Your task to perform on an android device: Go to internet settings Image 0: 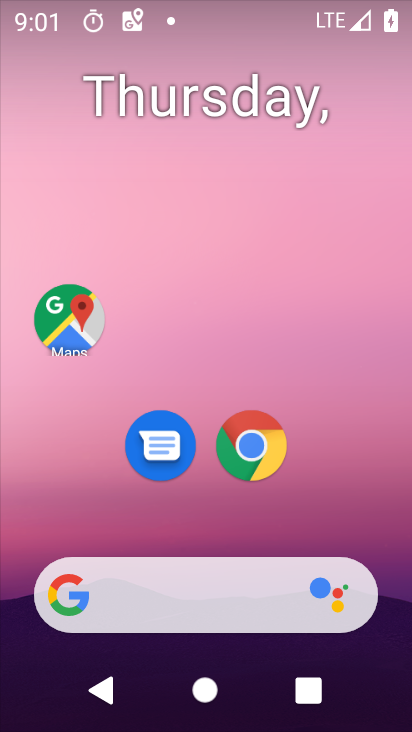
Step 0: drag from (186, 532) to (209, 178)
Your task to perform on an android device: Go to internet settings Image 1: 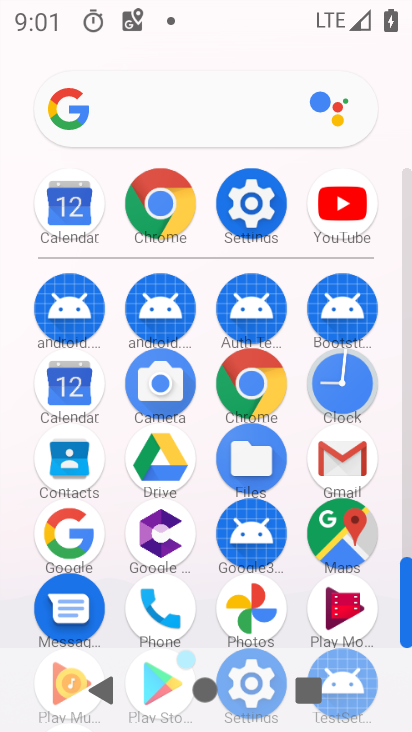
Step 1: click (245, 198)
Your task to perform on an android device: Go to internet settings Image 2: 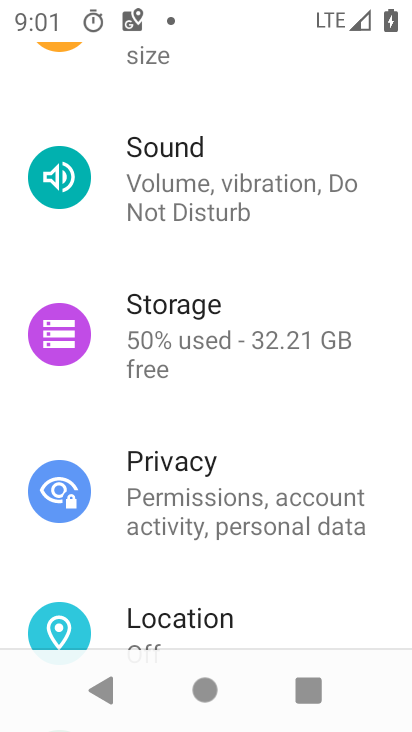
Step 2: drag from (217, 482) to (320, 723)
Your task to perform on an android device: Go to internet settings Image 3: 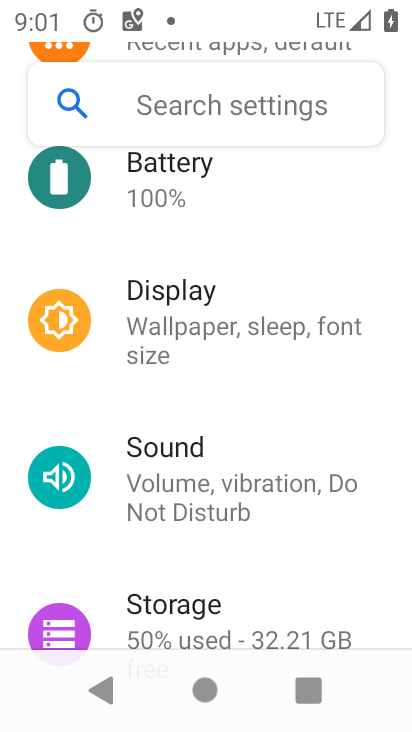
Step 3: drag from (115, 165) to (392, 656)
Your task to perform on an android device: Go to internet settings Image 4: 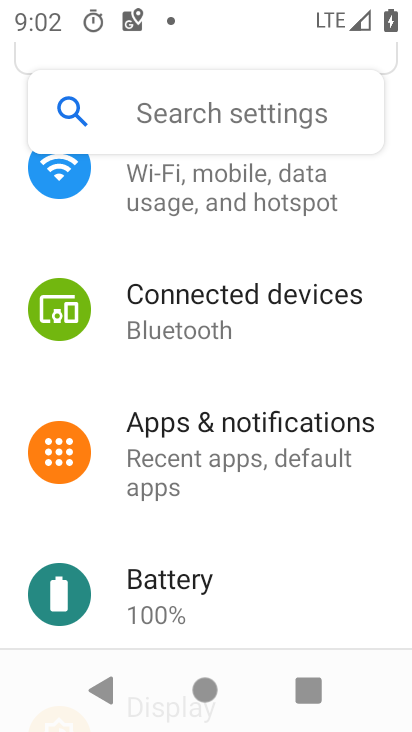
Step 4: drag from (231, 232) to (345, 653)
Your task to perform on an android device: Go to internet settings Image 5: 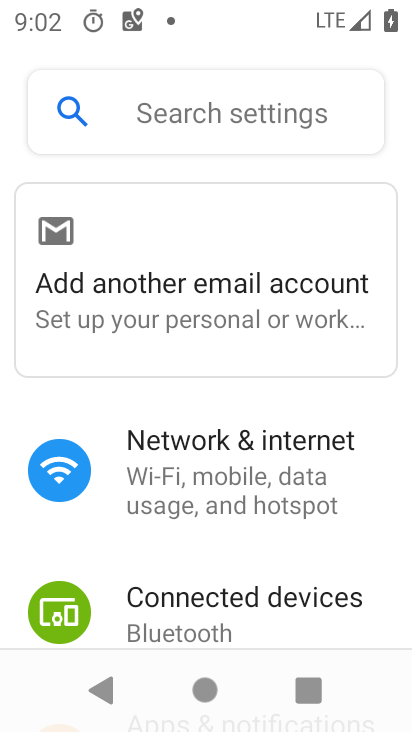
Step 5: click (219, 485)
Your task to perform on an android device: Go to internet settings Image 6: 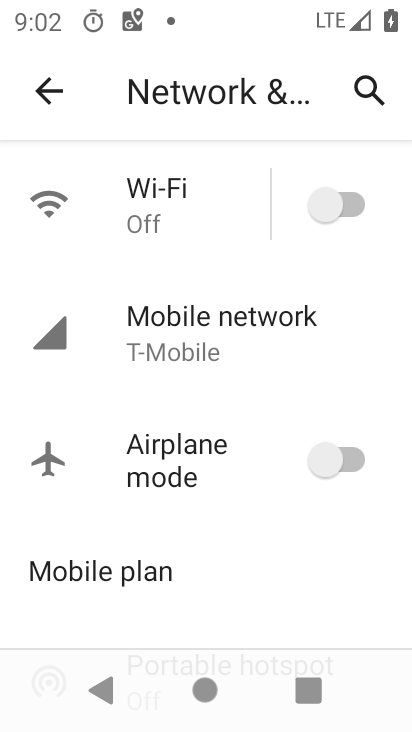
Step 6: task complete